Your task to perform on an android device: turn vacation reply on in the gmail app Image 0: 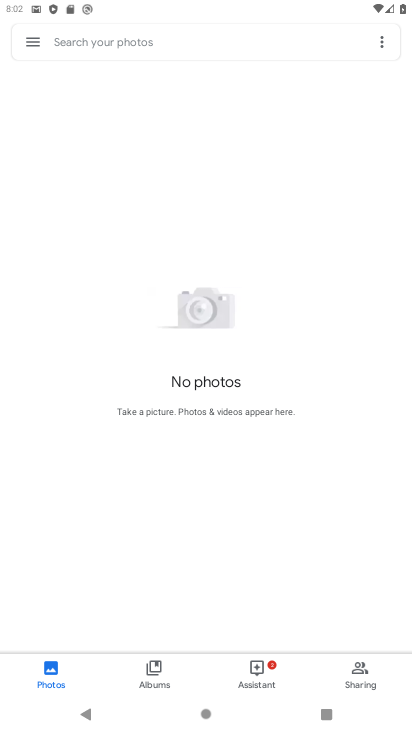
Step 0: press home button
Your task to perform on an android device: turn vacation reply on in the gmail app Image 1: 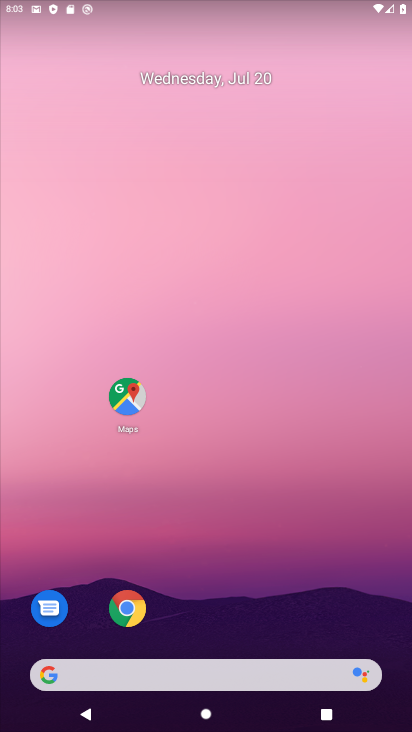
Step 1: task complete